Your task to perform on an android device: snooze an email in the gmail app Image 0: 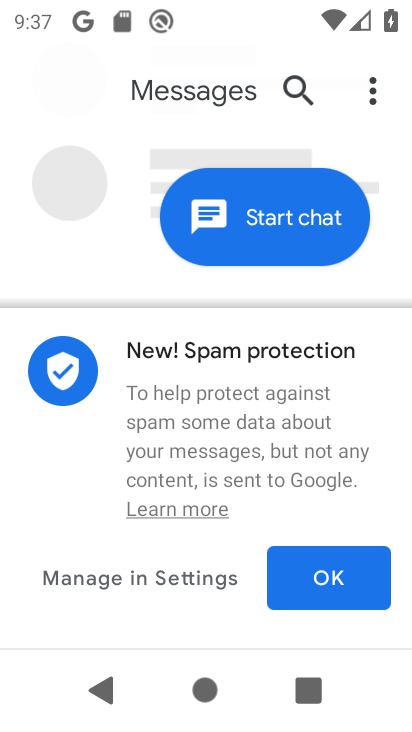
Step 0: drag from (393, 549) to (411, 369)
Your task to perform on an android device: snooze an email in the gmail app Image 1: 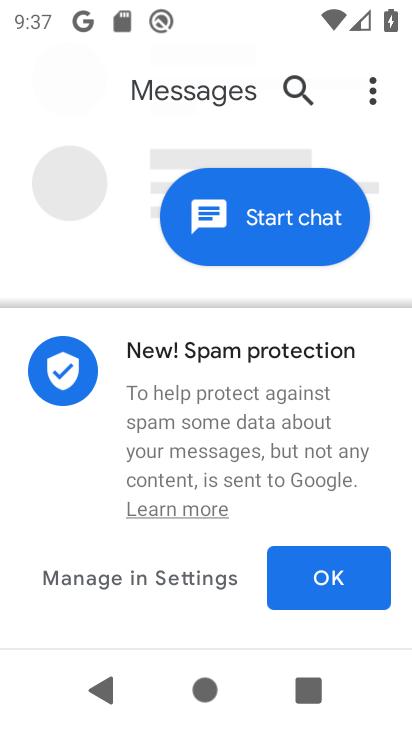
Step 1: press home button
Your task to perform on an android device: snooze an email in the gmail app Image 2: 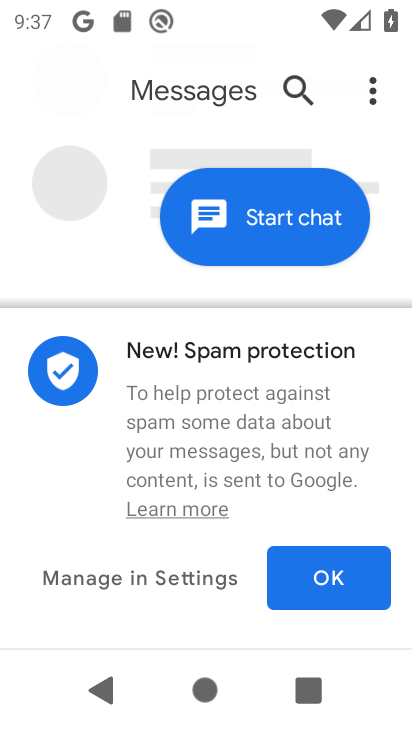
Step 2: drag from (411, 369) to (409, 479)
Your task to perform on an android device: snooze an email in the gmail app Image 3: 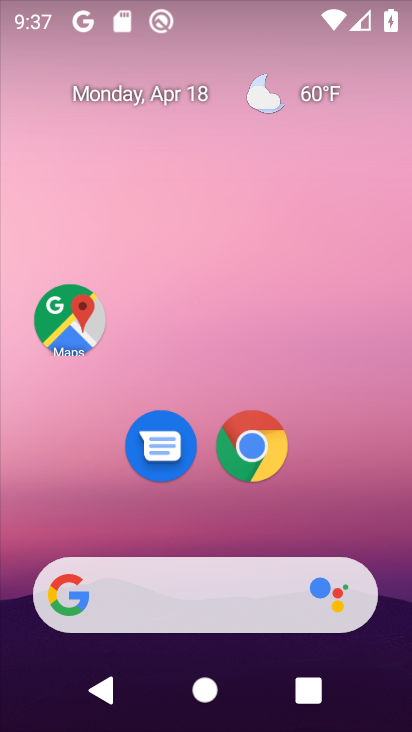
Step 3: drag from (372, 538) to (355, 125)
Your task to perform on an android device: snooze an email in the gmail app Image 4: 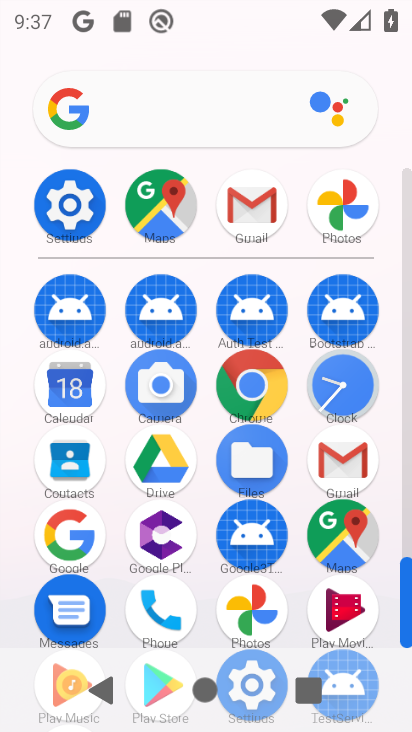
Step 4: click (346, 461)
Your task to perform on an android device: snooze an email in the gmail app Image 5: 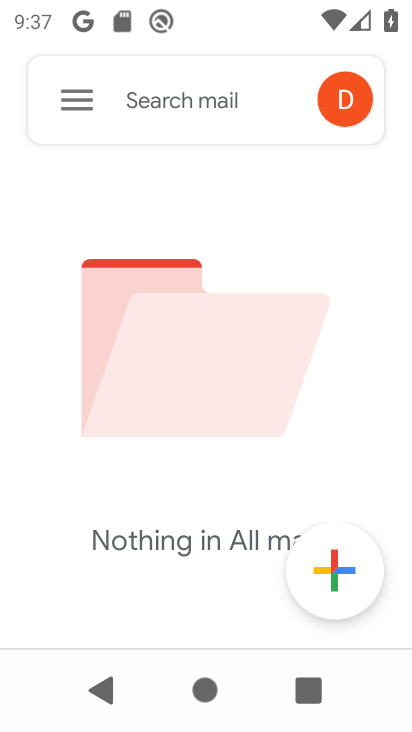
Step 5: click (78, 97)
Your task to perform on an android device: snooze an email in the gmail app Image 6: 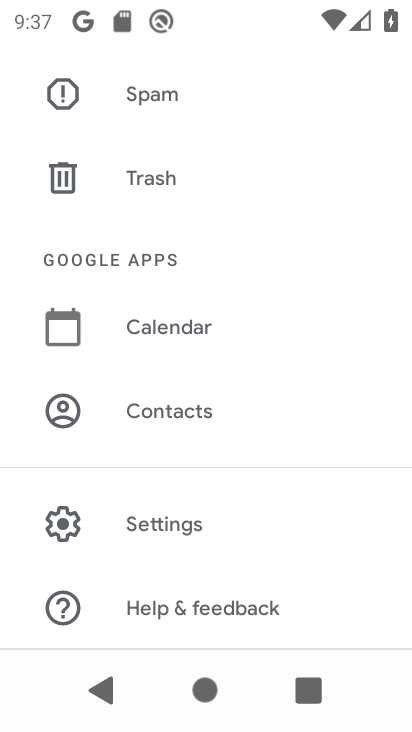
Step 6: drag from (327, 316) to (324, 439)
Your task to perform on an android device: snooze an email in the gmail app Image 7: 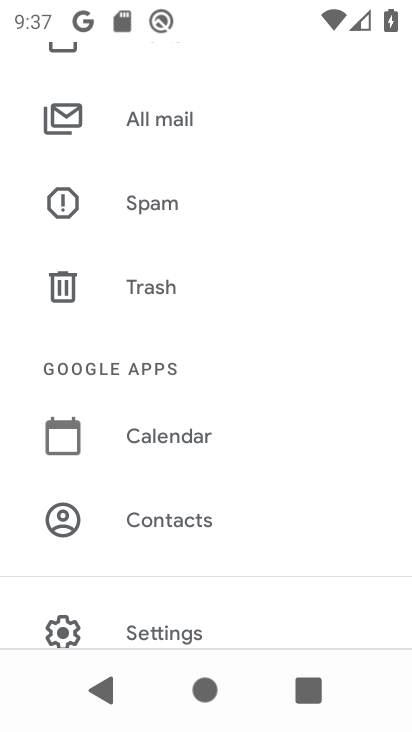
Step 7: drag from (332, 274) to (325, 467)
Your task to perform on an android device: snooze an email in the gmail app Image 8: 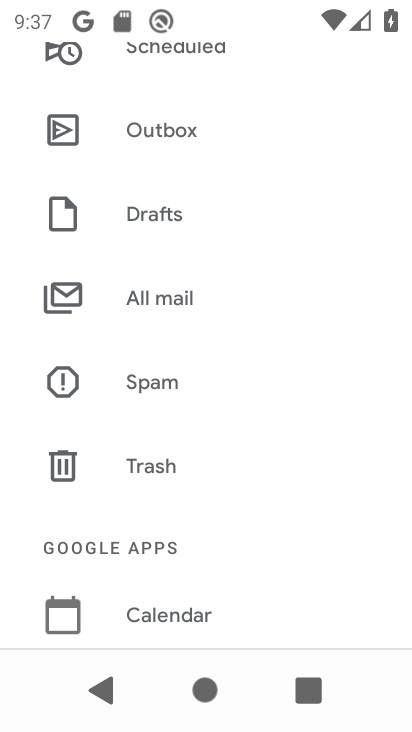
Step 8: drag from (326, 263) to (332, 553)
Your task to perform on an android device: snooze an email in the gmail app Image 9: 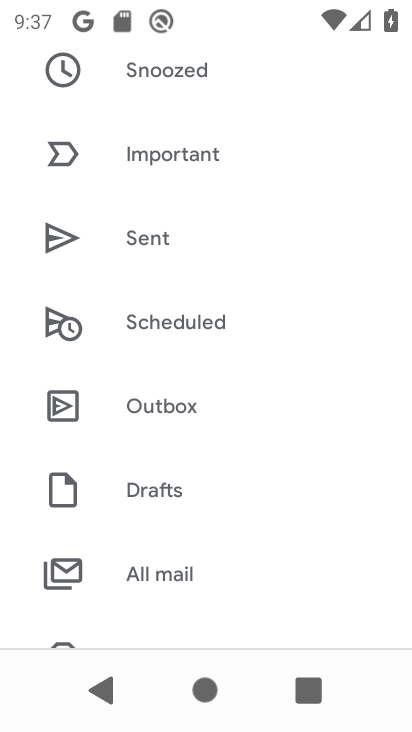
Step 9: drag from (328, 276) to (339, 555)
Your task to perform on an android device: snooze an email in the gmail app Image 10: 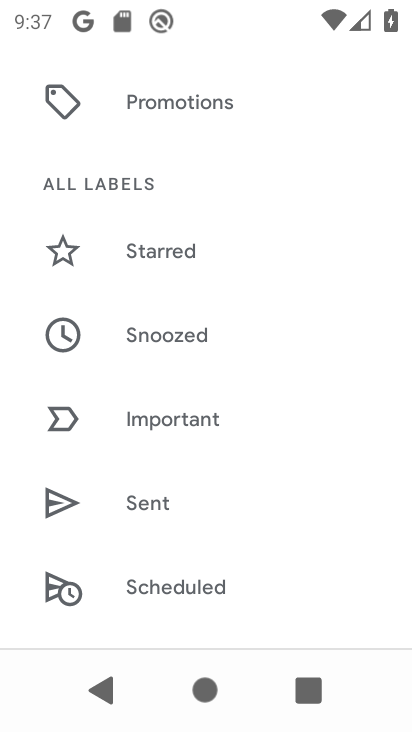
Step 10: click (180, 328)
Your task to perform on an android device: snooze an email in the gmail app Image 11: 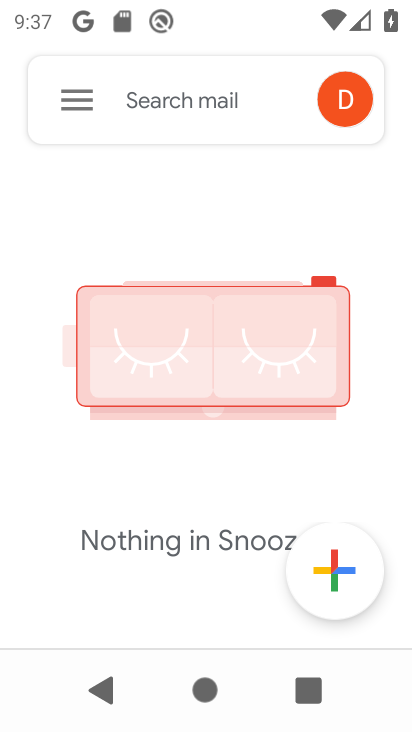
Step 11: task complete